Your task to perform on an android device: delete a single message in the gmail app Image 0: 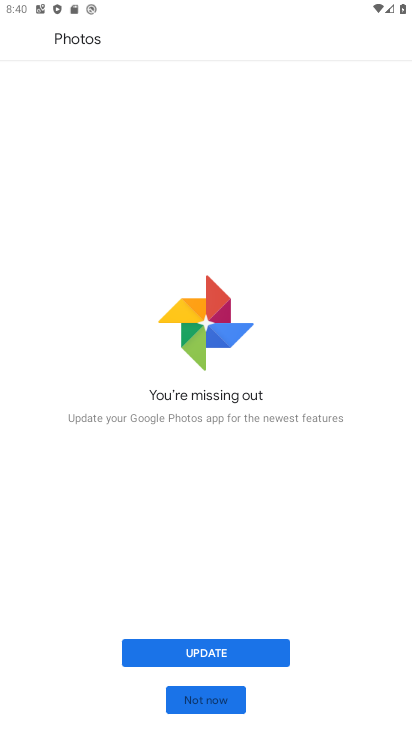
Step 0: press home button
Your task to perform on an android device: delete a single message in the gmail app Image 1: 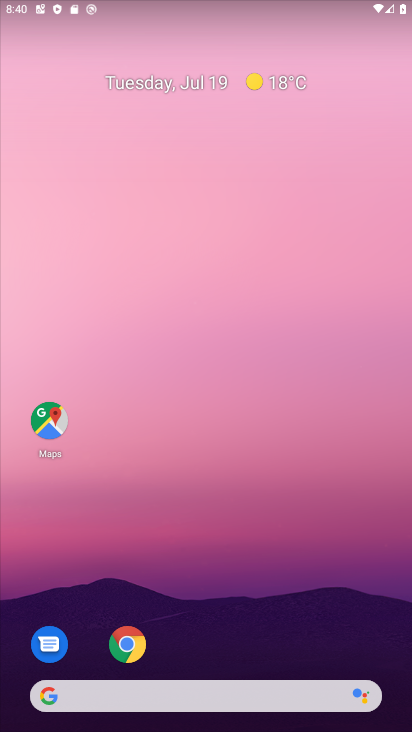
Step 1: drag from (235, 669) to (236, 121)
Your task to perform on an android device: delete a single message in the gmail app Image 2: 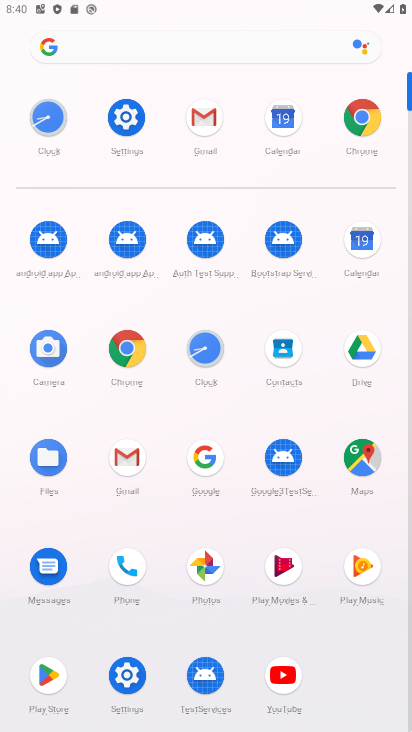
Step 2: click (121, 450)
Your task to perform on an android device: delete a single message in the gmail app Image 3: 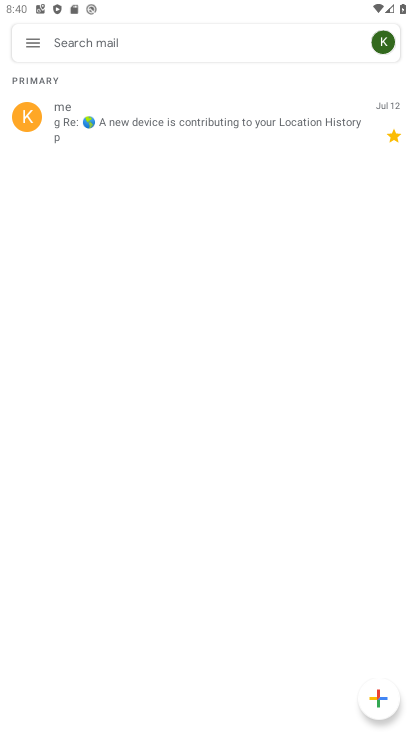
Step 3: click (167, 123)
Your task to perform on an android device: delete a single message in the gmail app Image 4: 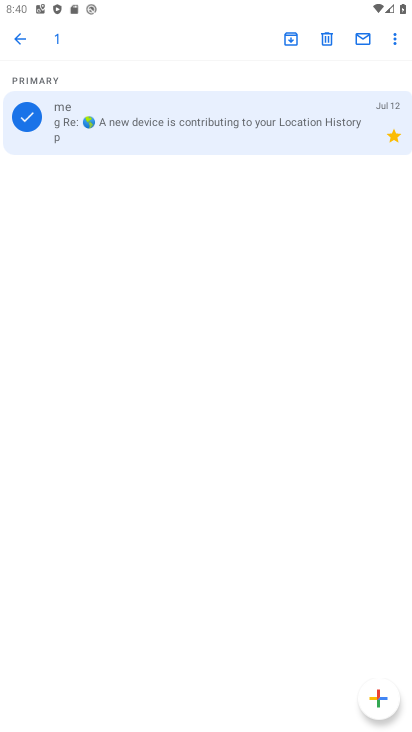
Step 4: click (321, 38)
Your task to perform on an android device: delete a single message in the gmail app Image 5: 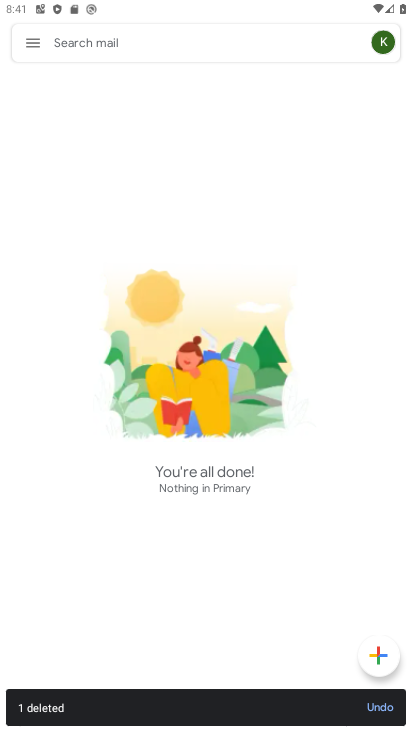
Step 5: task complete